Your task to perform on an android device: Go to network settings Image 0: 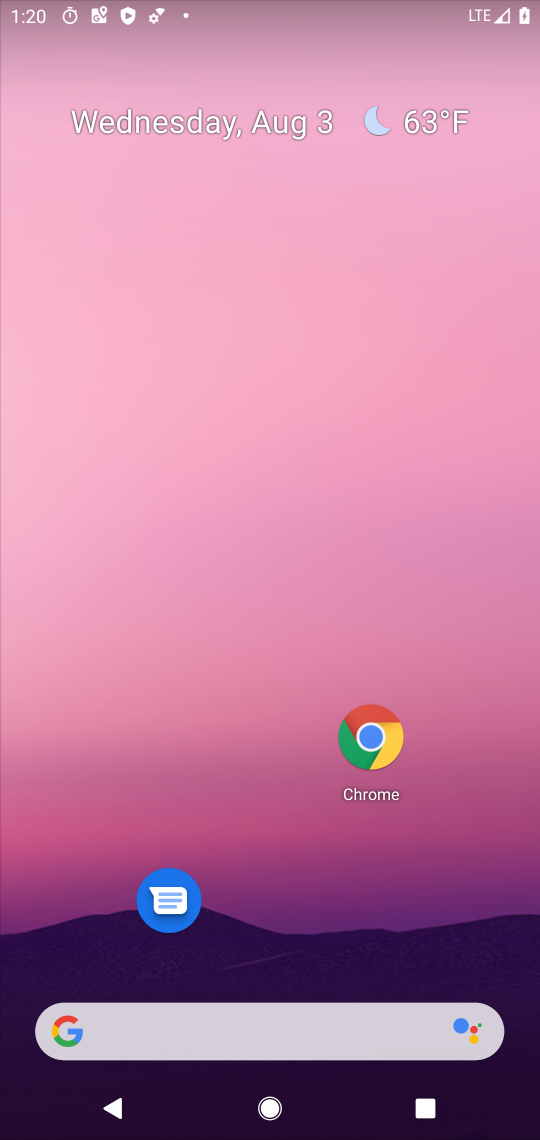
Step 0: drag from (319, 837) to (240, 46)
Your task to perform on an android device: Go to network settings Image 1: 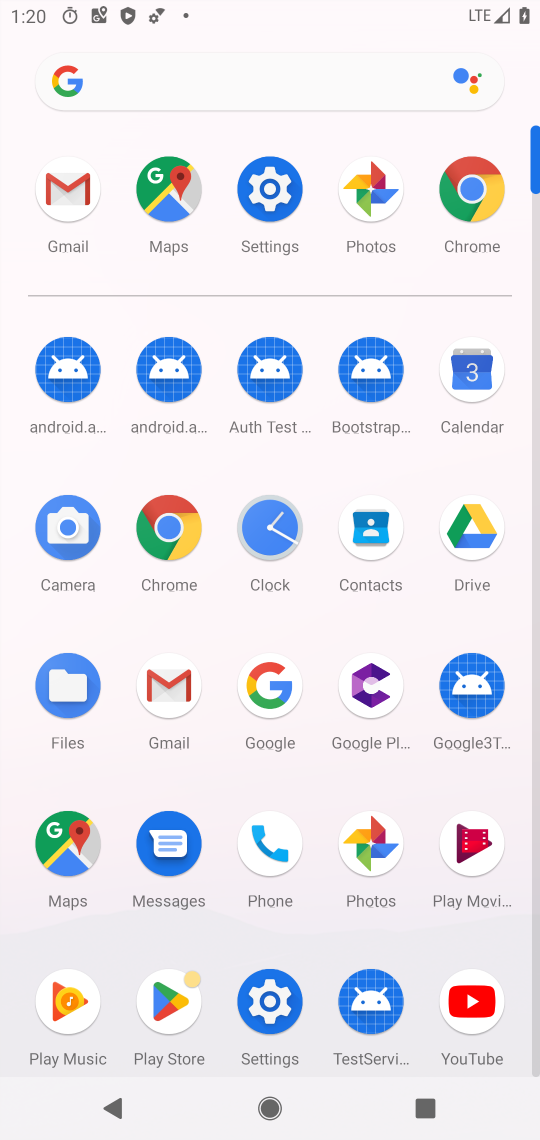
Step 1: click (276, 182)
Your task to perform on an android device: Go to network settings Image 2: 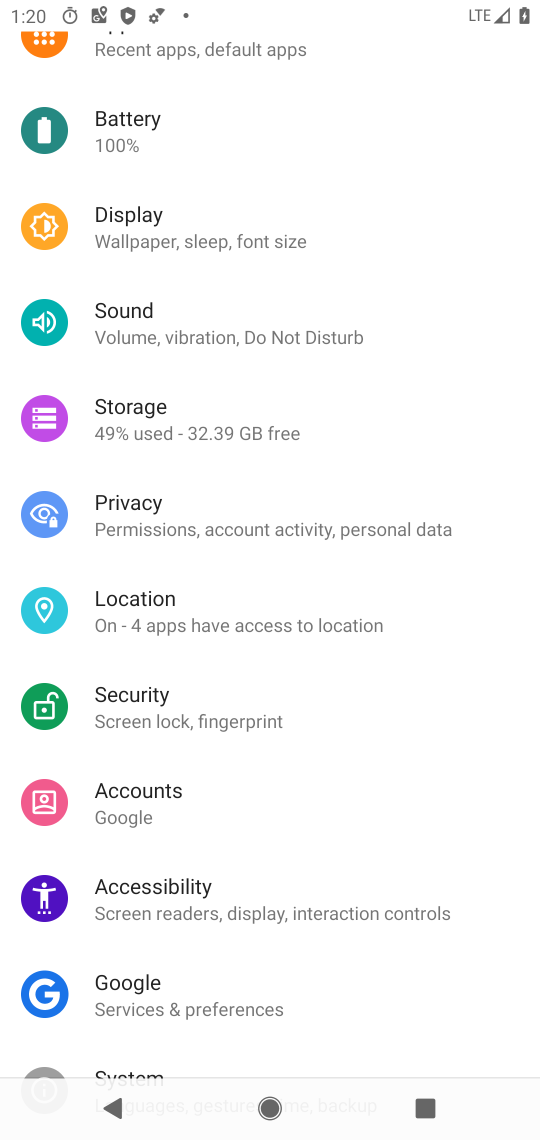
Step 2: drag from (350, 977) to (301, 237)
Your task to perform on an android device: Go to network settings Image 3: 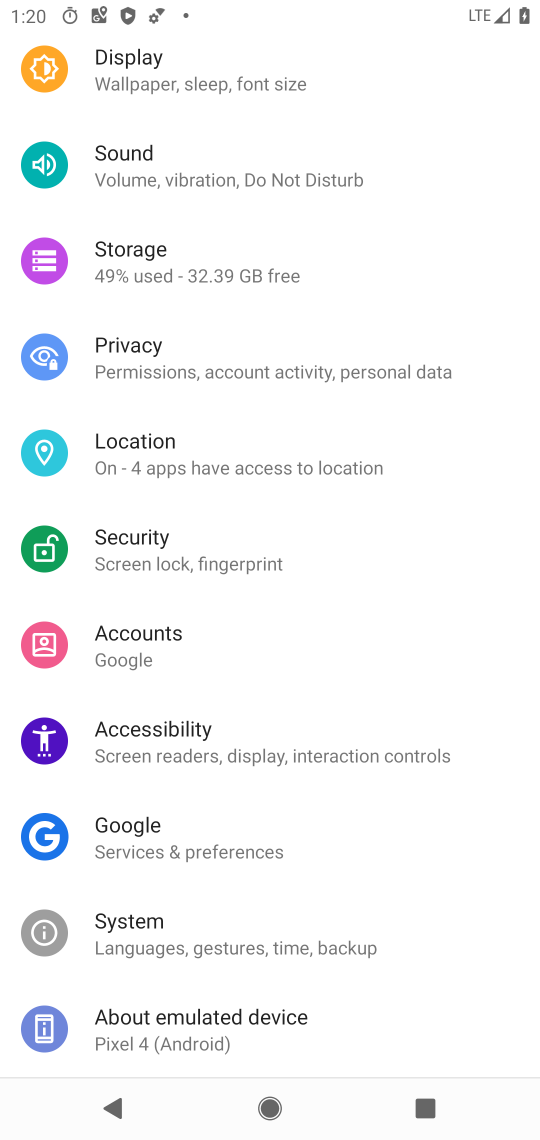
Step 3: drag from (408, 130) to (330, 1065)
Your task to perform on an android device: Go to network settings Image 4: 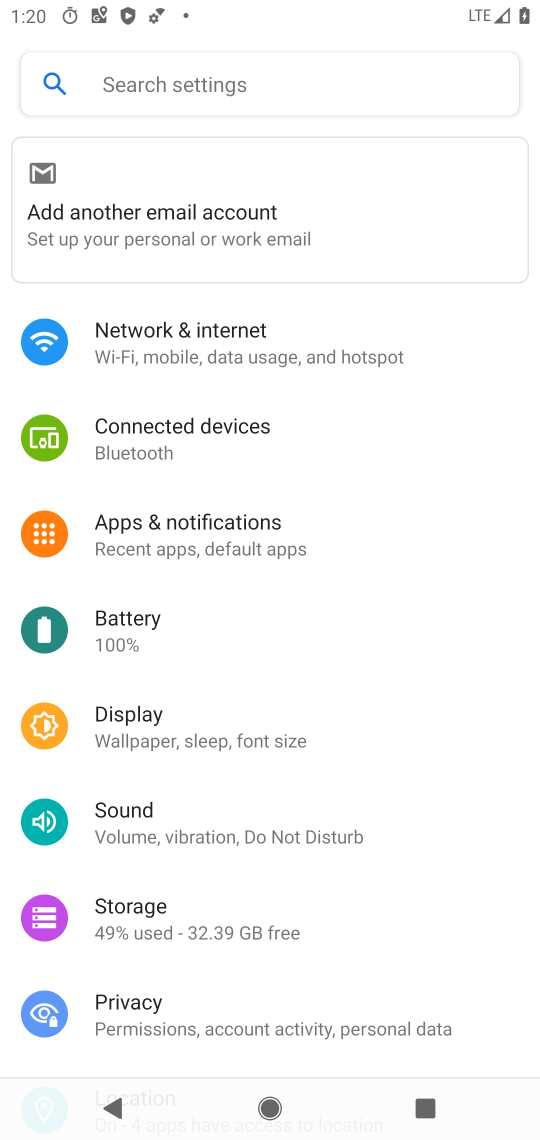
Step 4: click (216, 333)
Your task to perform on an android device: Go to network settings Image 5: 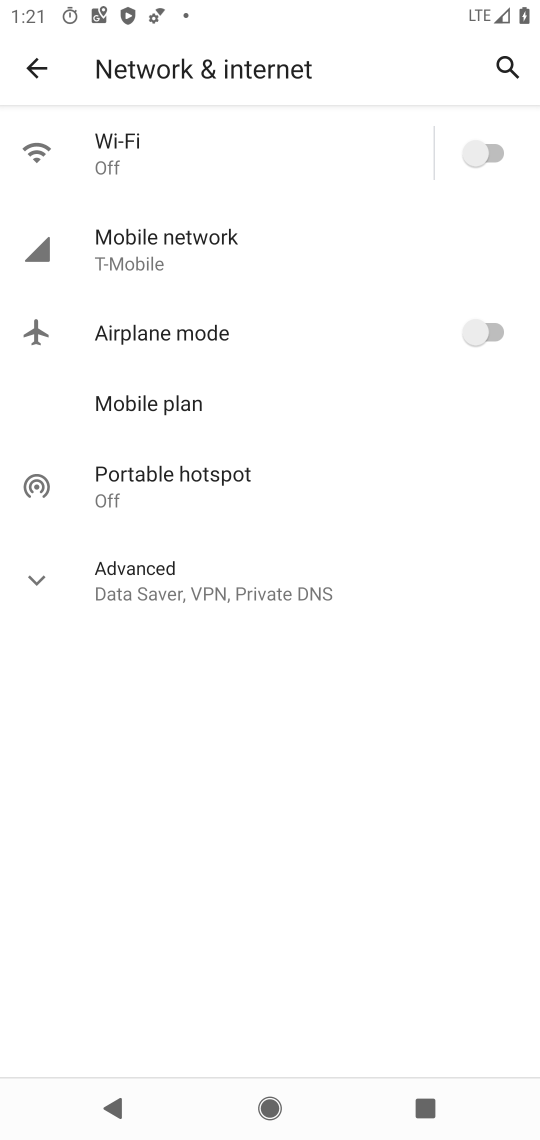
Step 5: task complete